Your task to perform on an android device: What's on my calendar today? Image 0: 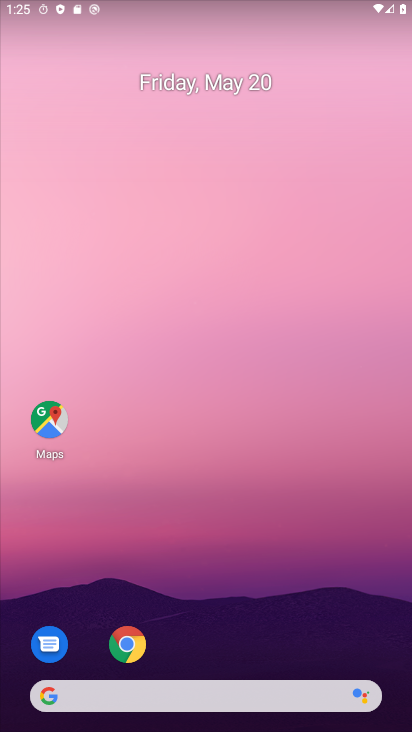
Step 0: click (207, 89)
Your task to perform on an android device: What's on my calendar today? Image 1: 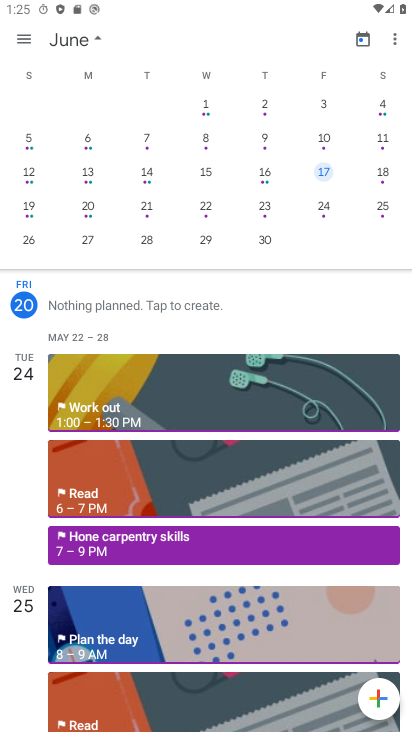
Step 1: task complete